Your task to perform on an android device: Go to internet settings Image 0: 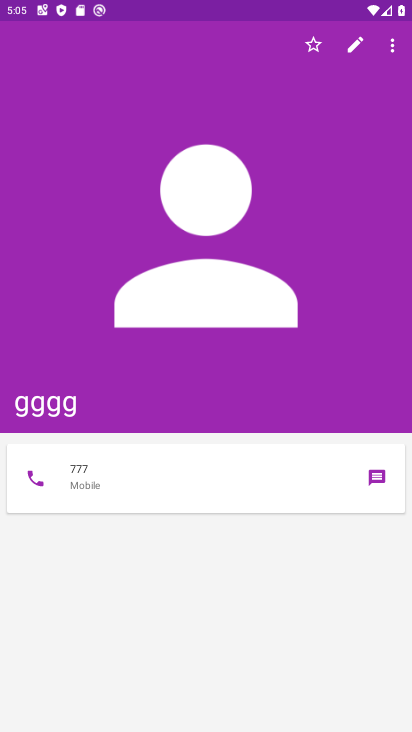
Step 0: press home button
Your task to perform on an android device: Go to internet settings Image 1: 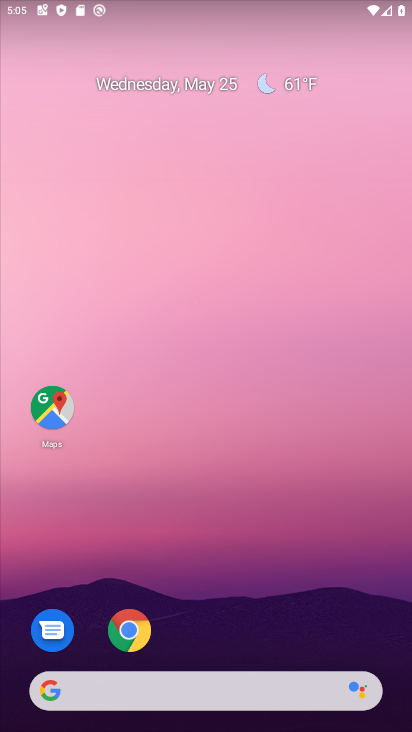
Step 1: drag from (190, 599) to (229, 49)
Your task to perform on an android device: Go to internet settings Image 2: 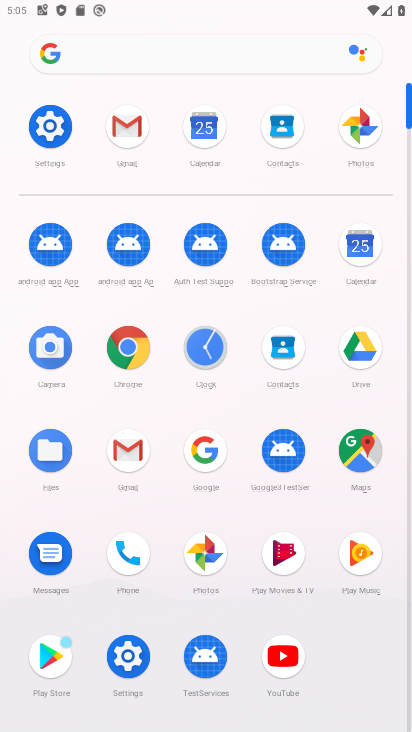
Step 2: click (40, 131)
Your task to perform on an android device: Go to internet settings Image 3: 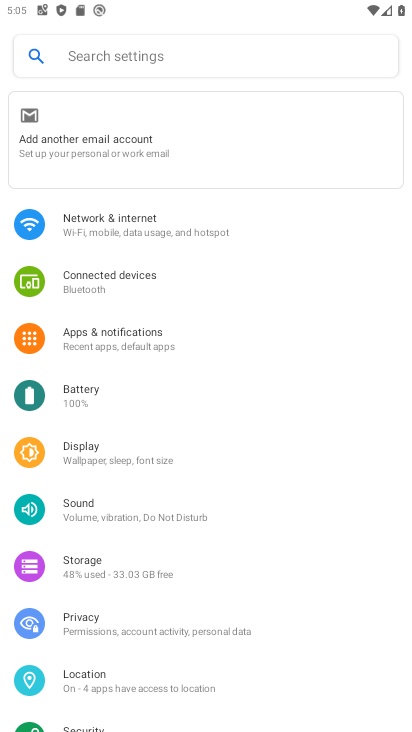
Step 3: click (155, 216)
Your task to perform on an android device: Go to internet settings Image 4: 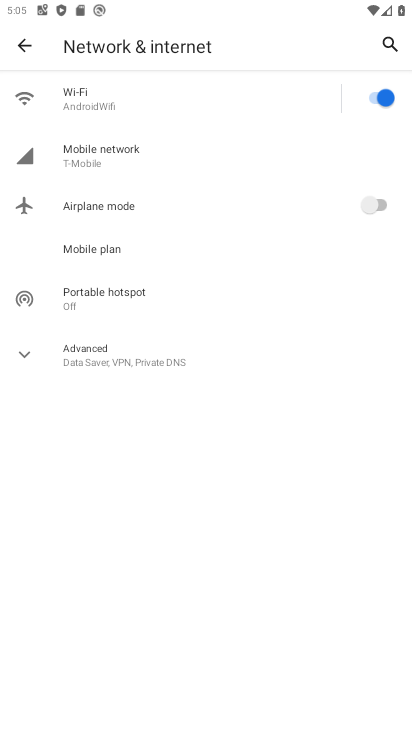
Step 4: task complete